Your task to perform on an android device: install app "Facebook Messenger" Image 0: 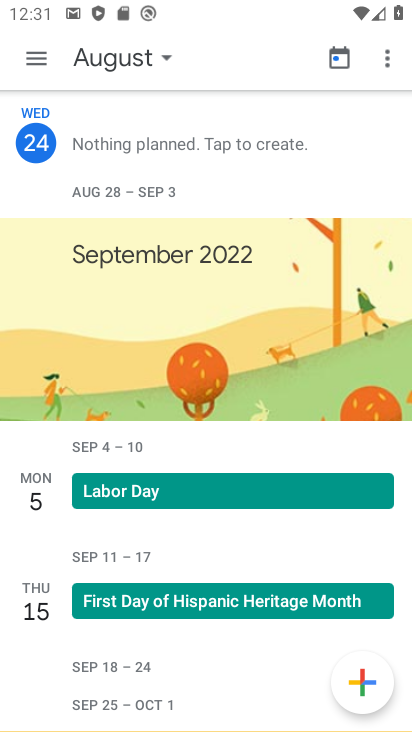
Step 0: press home button
Your task to perform on an android device: install app "Facebook Messenger" Image 1: 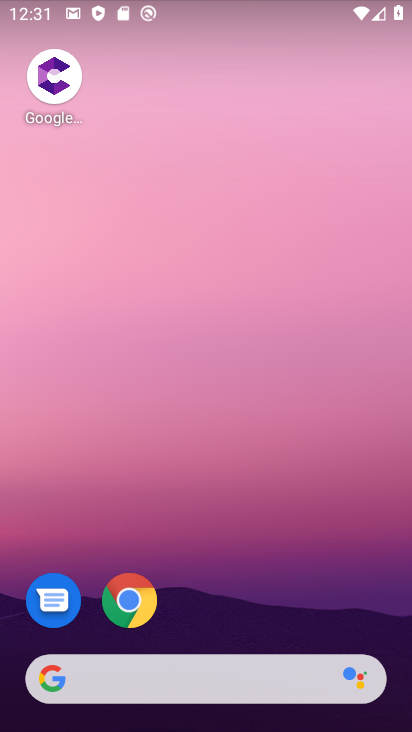
Step 1: drag from (249, 637) to (246, 92)
Your task to perform on an android device: install app "Facebook Messenger" Image 2: 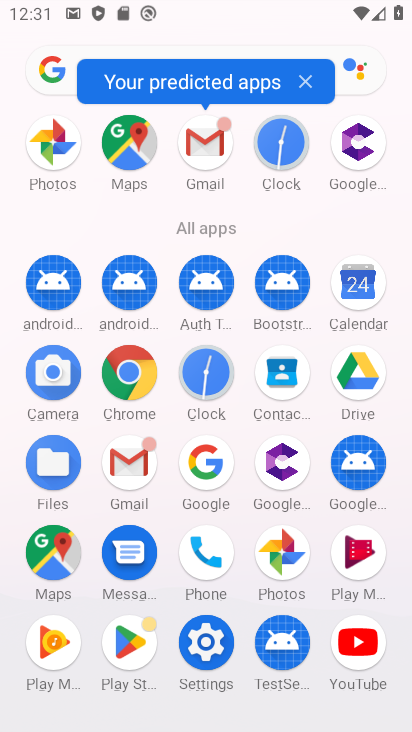
Step 2: click (301, 81)
Your task to perform on an android device: install app "Facebook Messenger" Image 3: 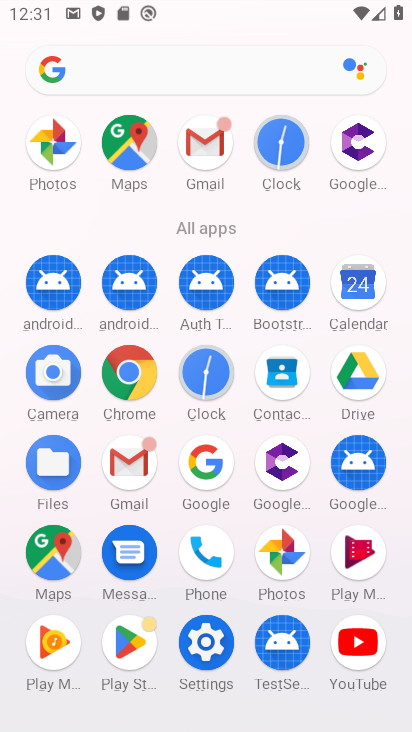
Step 3: click (136, 656)
Your task to perform on an android device: install app "Facebook Messenger" Image 4: 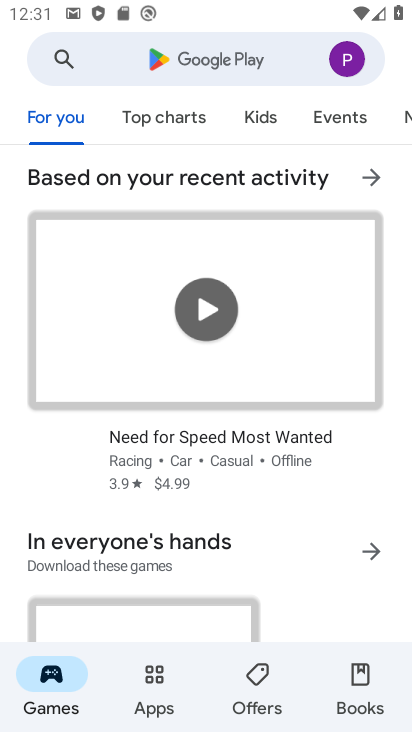
Step 4: click (293, 70)
Your task to perform on an android device: install app "Facebook Messenger" Image 5: 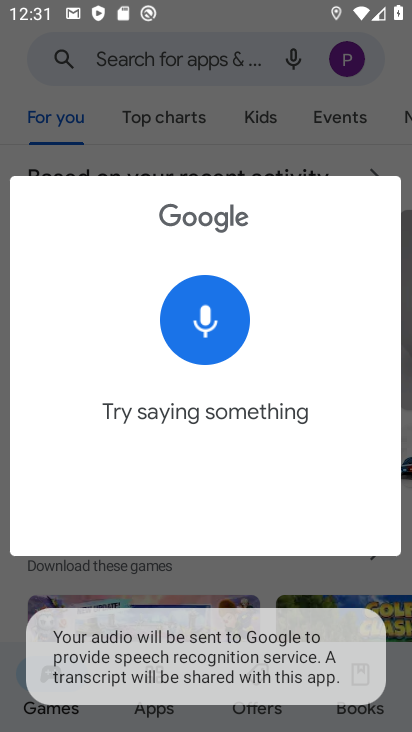
Step 5: click (189, 592)
Your task to perform on an android device: install app "Facebook Messenger" Image 6: 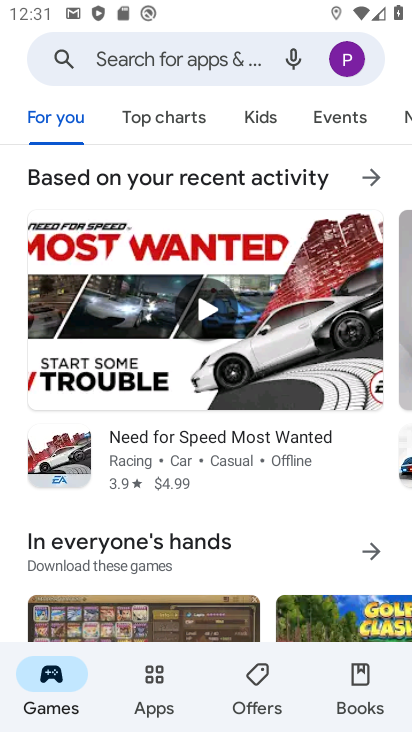
Step 6: click (219, 54)
Your task to perform on an android device: install app "Facebook Messenger" Image 7: 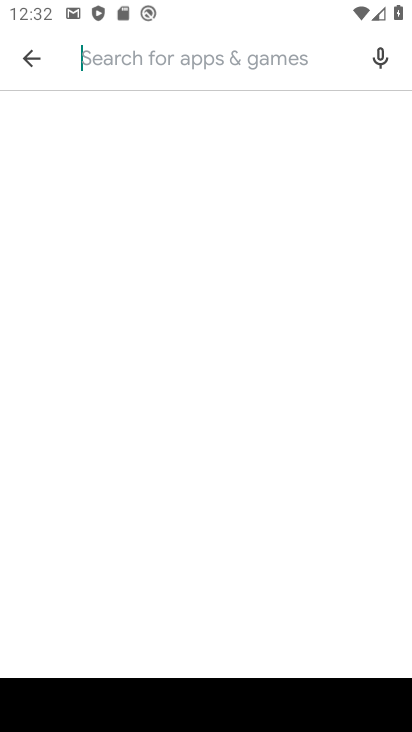
Step 7: type "facebook"
Your task to perform on an android device: install app "Facebook Messenger" Image 8: 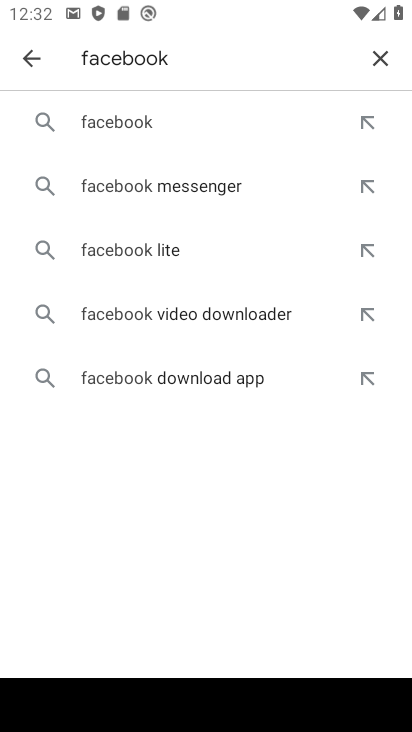
Step 8: click (197, 122)
Your task to perform on an android device: install app "Facebook Messenger" Image 9: 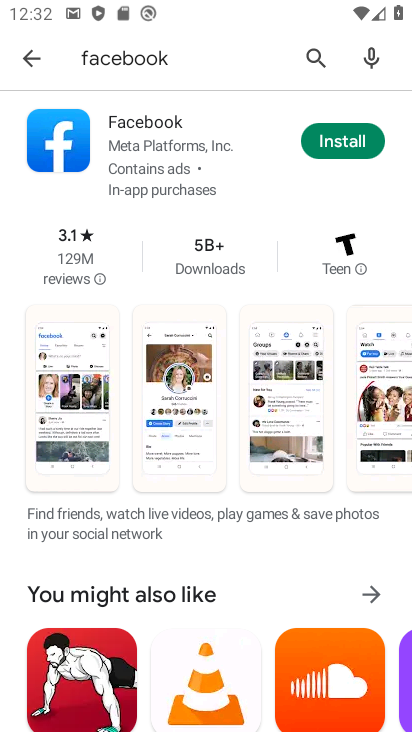
Step 9: click (360, 147)
Your task to perform on an android device: install app "Facebook Messenger" Image 10: 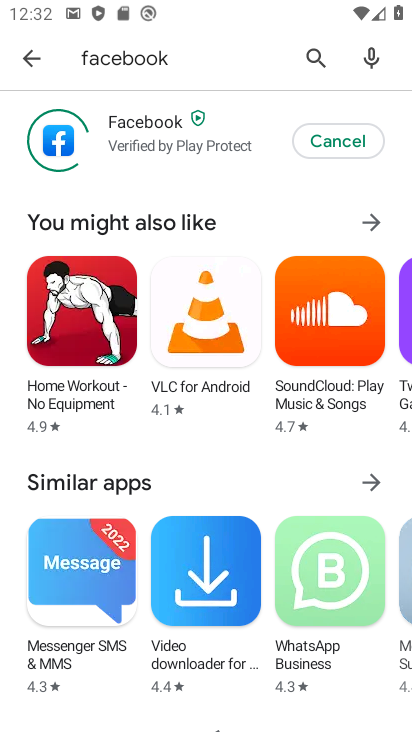
Step 10: task complete